Your task to perform on an android device: Open location settings Image 0: 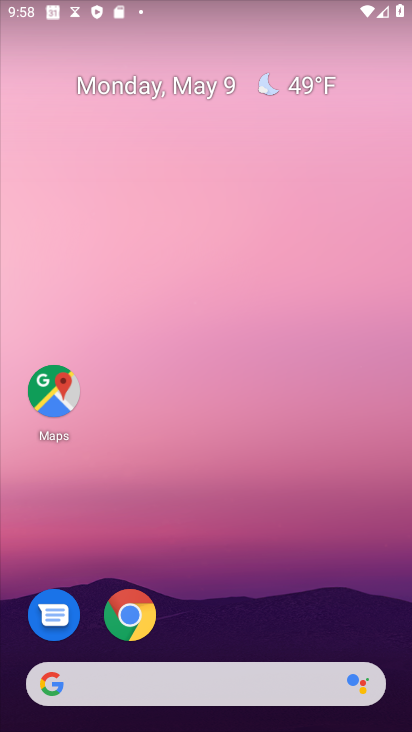
Step 0: drag from (206, 571) to (233, 7)
Your task to perform on an android device: Open location settings Image 1: 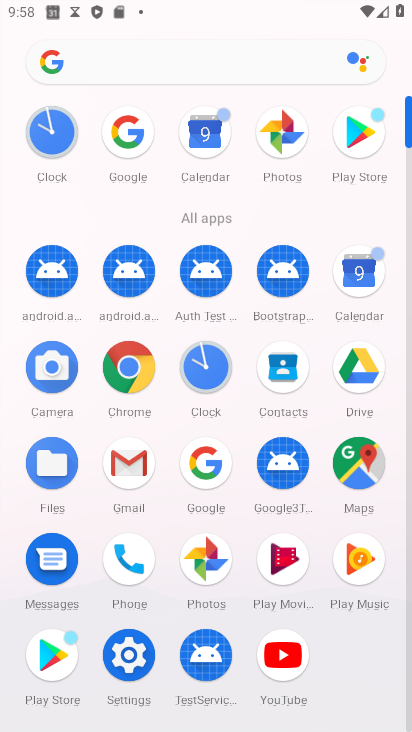
Step 1: click (139, 652)
Your task to perform on an android device: Open location settings Image 2: 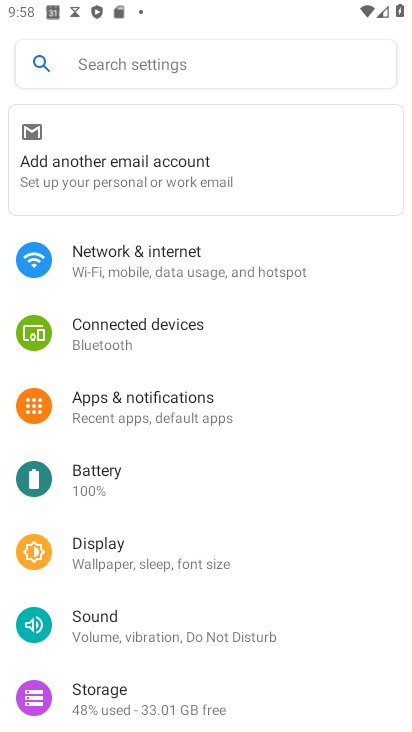
Step 2: drag from (224, 635) to (247, 273)
Your task to perform on an android device: Open location settings Image 3: 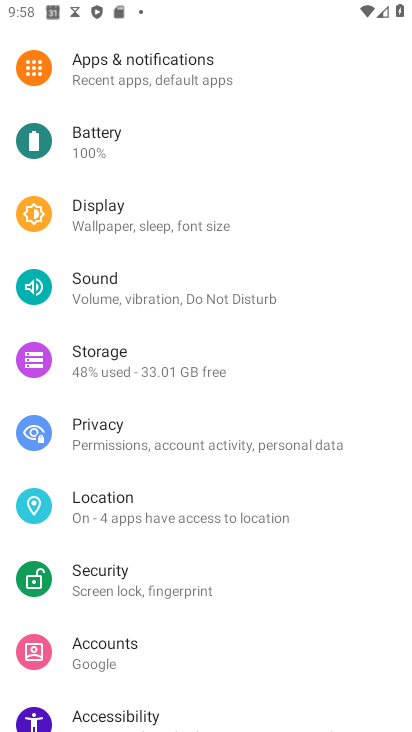
Step 3: click (180, 518)
Your task to perform on an android device: Open location settings Image 4: 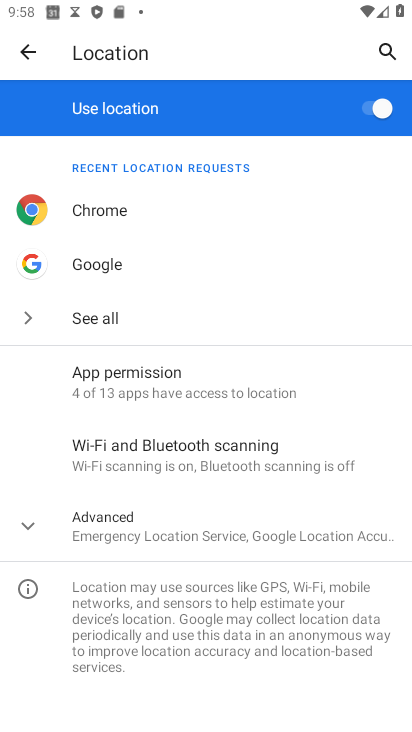
Step 4: task complete